Your task to perform on an android device: open chrome privacy settings Image 0: 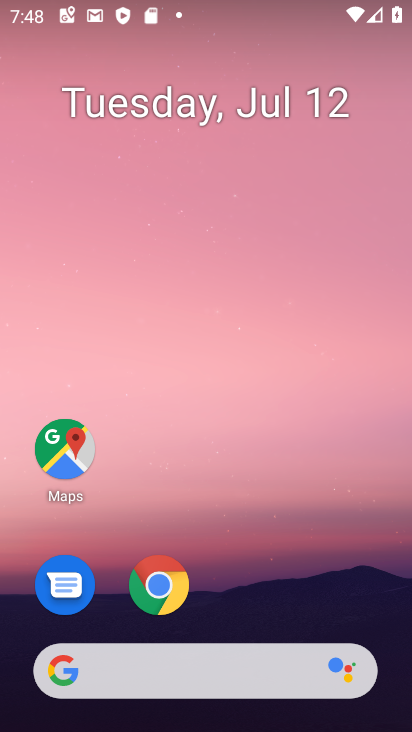
Step 0: click (165, 579)
Your task to perform on an android device: open chrome privacy settings Image 1: 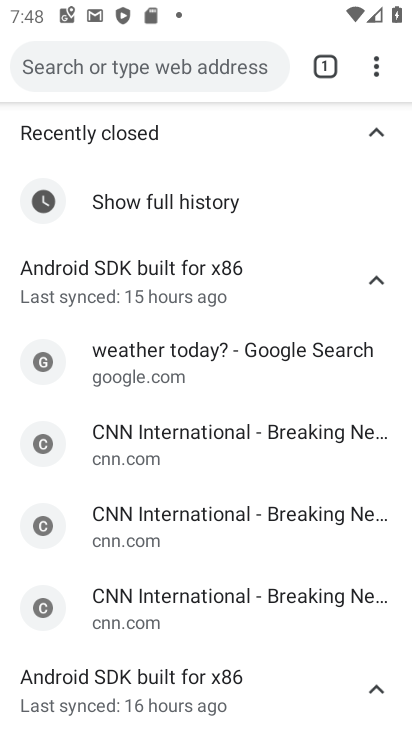
Step 1: click (374, 73)
Your task to perform on an android device: open chrome privacy settings Image 2: 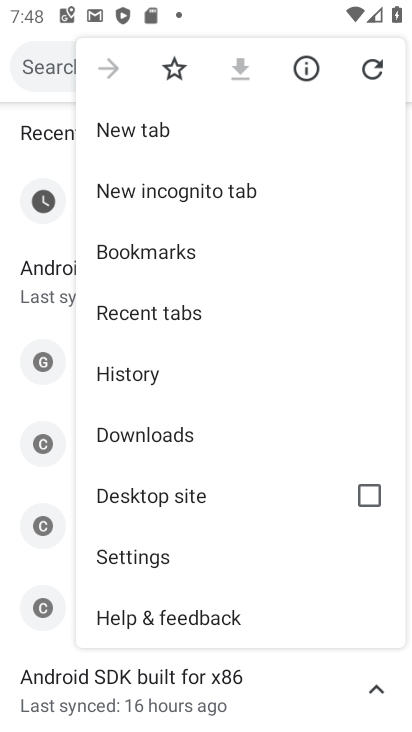
Step 2: click (155, 554)
Your task to perform on an android device: open chrome privacy settings Image 3: 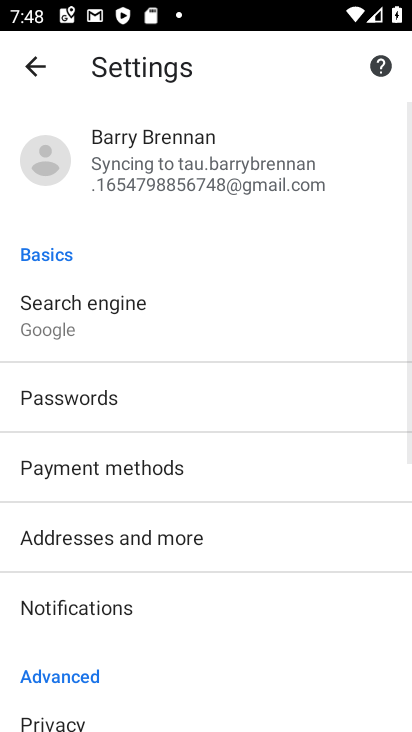
Step 3: drag from (189, 644) to (236, 349)
Your task to perform on an android device: open chrome privacy settings Image 4: 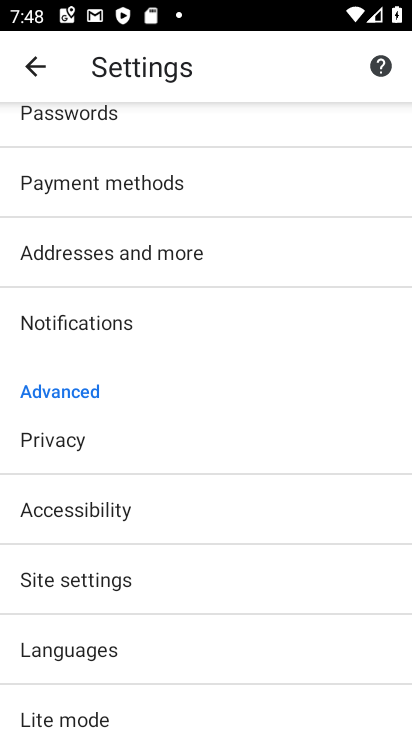
Step 4: click (81, 440)
Your task to perform on an android device: open chrome privacy settings Image 5: 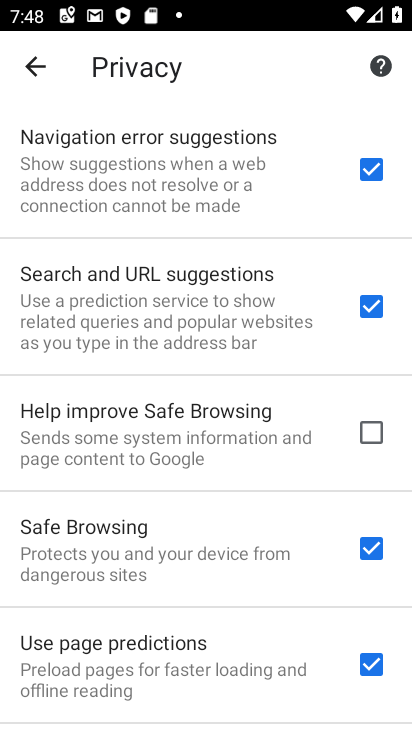
Step 5: task complete